Your task to perform on an android device: Open calendar and show me the fourth week of next month Image 0: 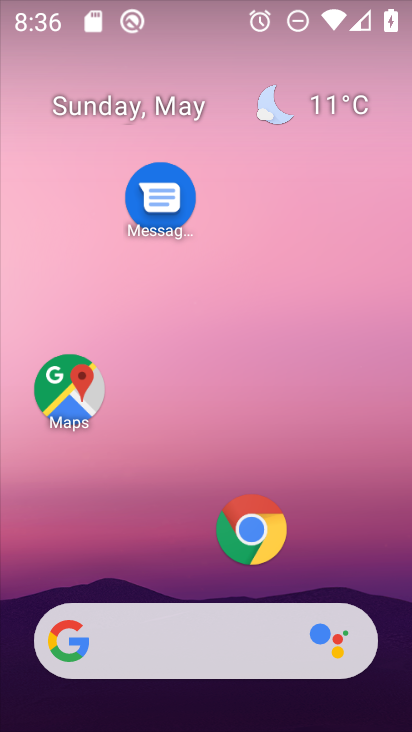
Step 0: drag from (185, 572) to (239, 83)
Your task to perform on an android device: Open calendar and show me the fourth week of next month Image 1: 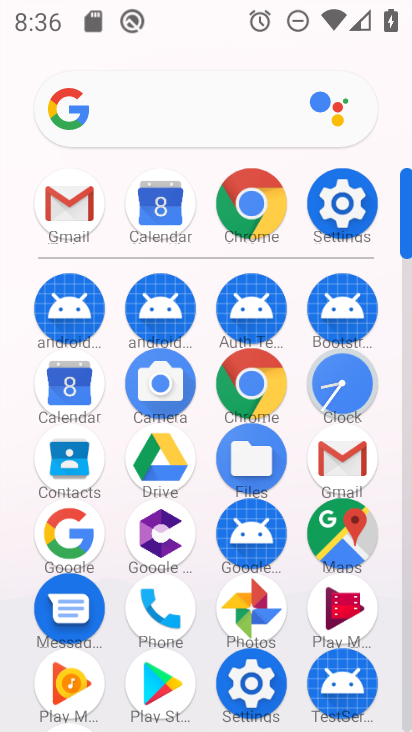
Step 1: click (71, 380)
Your task to perform on an android device: Open calendar and show me the fourth week of next month Image 2: 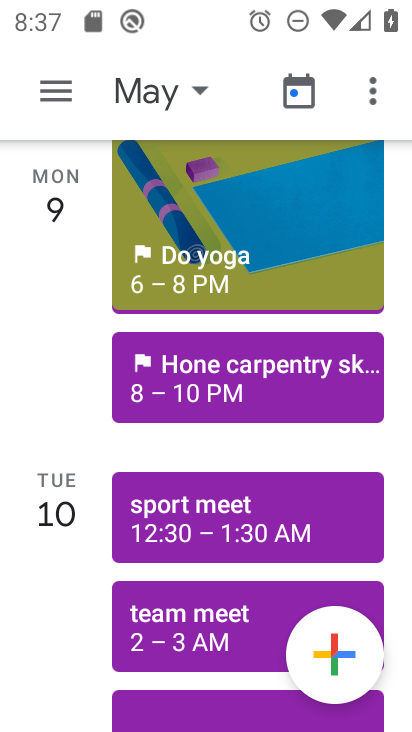
Step 2: click (200, 85)
Your task to perform on an android device: Open calendar and show me the fourth week of next month Image 3: 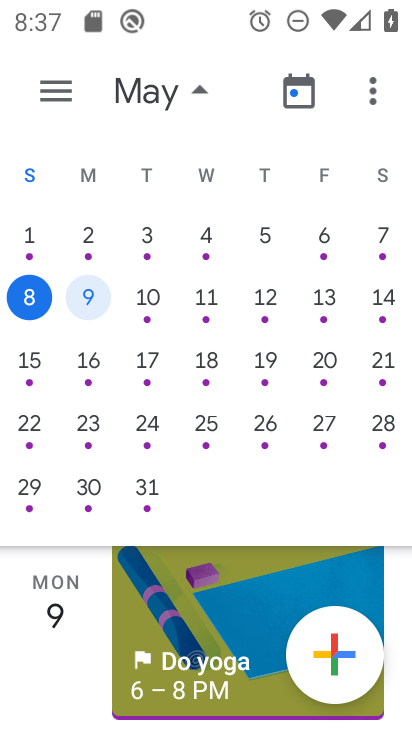
Step 3: drag from (359, 270) to (9, 279)
Your task to perform on an android device: Open calendar and show me the fourth week of next month Image 4: 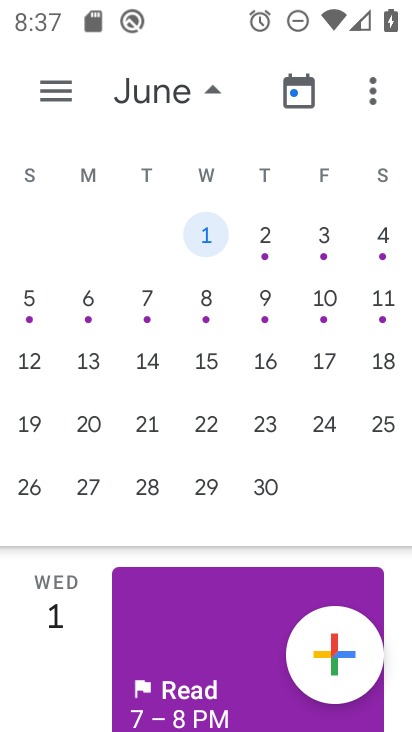
Step 4: click (51, 91)
Your task to perform on an android device: Open calendar and show me the fourth week of next month Image 5: 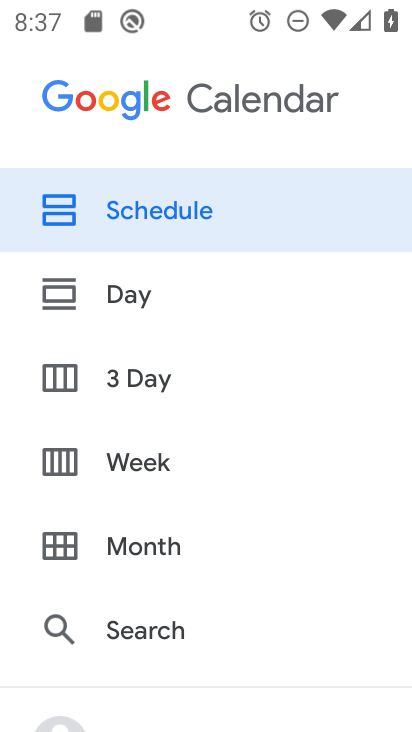
Step 5: click (113, 456)
Your task to perform on an android device: Open calendar and show me the fourth week of next month Image 6: 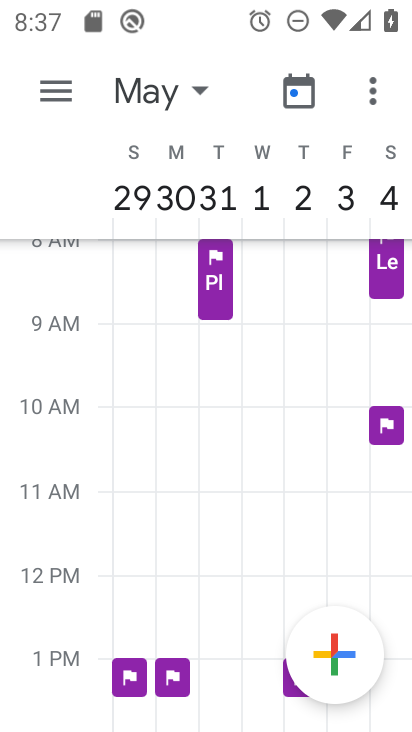
Step 6: drag from (391, 193) to (28, 195)
Your task to perform on an android device: Open calendar and show me the fourth week of next month Image 7: 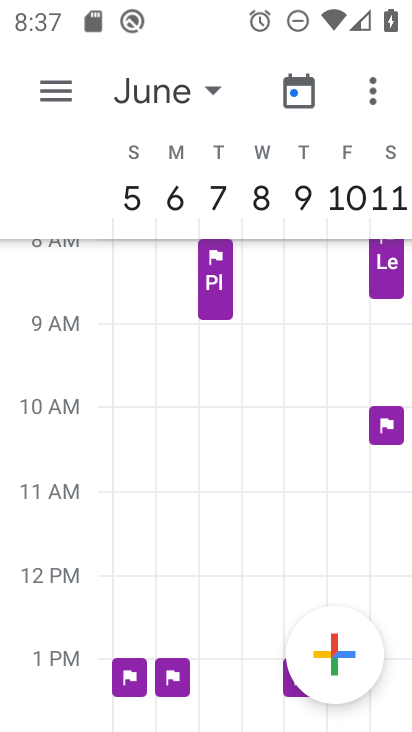
Step 7: drag from (379, 193) to (86, 203)
Your task to perform on an android device: Open calendar and show me the fourth week of next month Image 8: 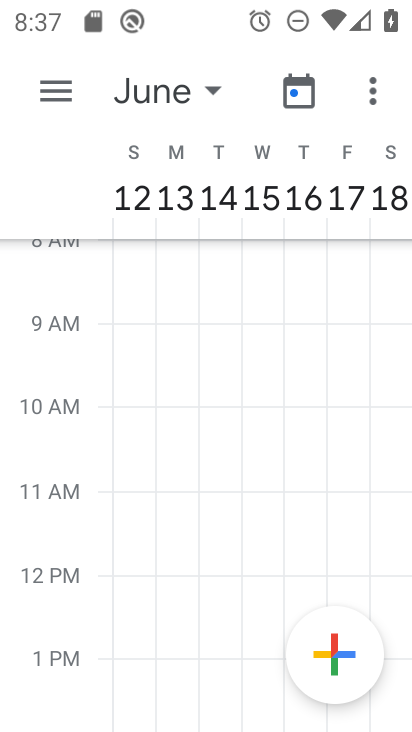
Step 8: drag from (385, 190) to (16, 187)
Your task to perform on an android device: Open calendar and show me the fourth week of next month Image 9: 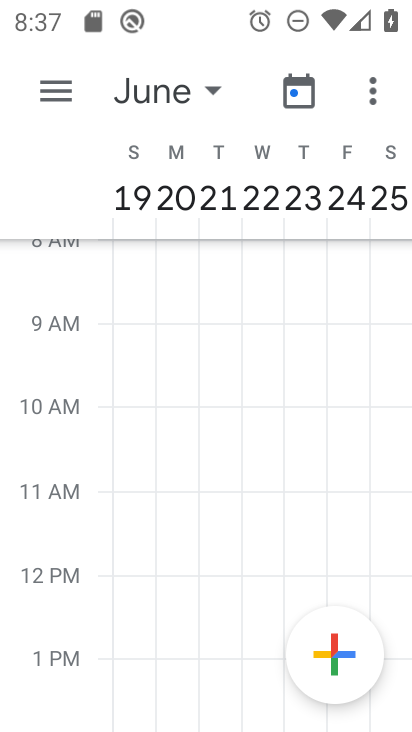
Step 9: click (211, 85)
Your task to perform on an android device: Open calendar and show me the fourth week of next month Image 10: 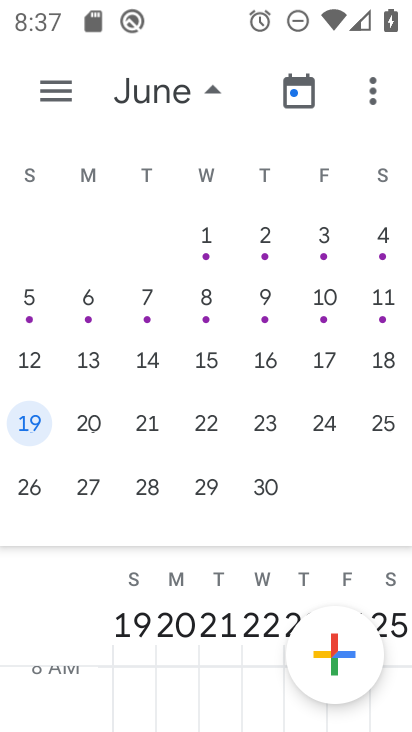
Step 10: click (135, 620)
Your task to perform on an android device: Open calendar and show me the fourth week of next month Image 11: 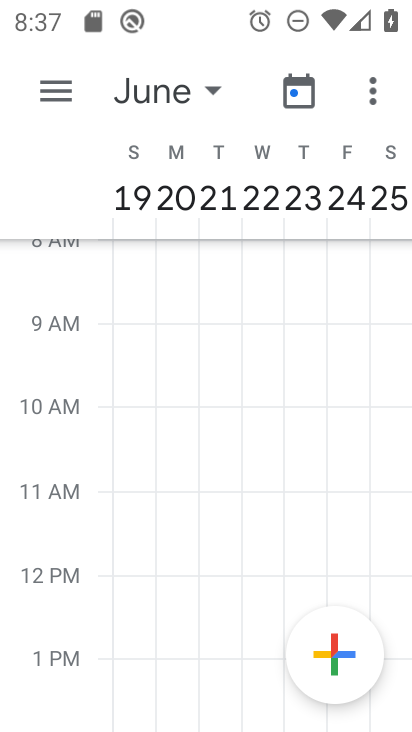
Step 11: click (139, 192)
Your task to perform on an android device: Open calendar and show me the fourth week of next month Image 12: 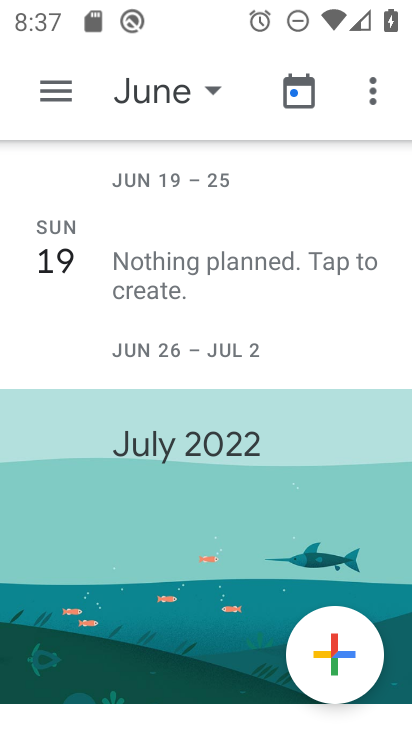
Step 12: task complete